Your task to perform on an android device: set default search engine in the chrome app Image 0: 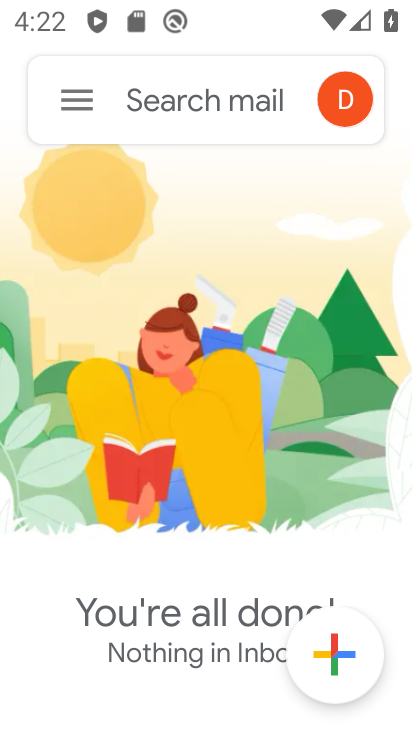
Step 0: drag from (234, 572) to (202, 282)
Your task to perform on an android device: set default search engine in the chrome app Image 1: 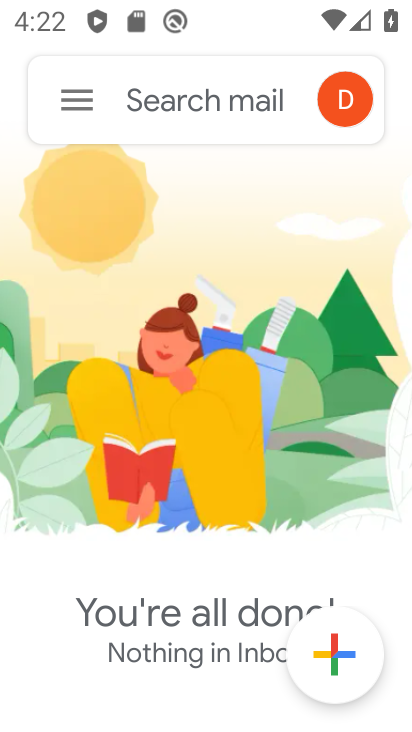
Step 1: press home button
Your task to perform on an android device: set default search engine in the chrome app Image 2: 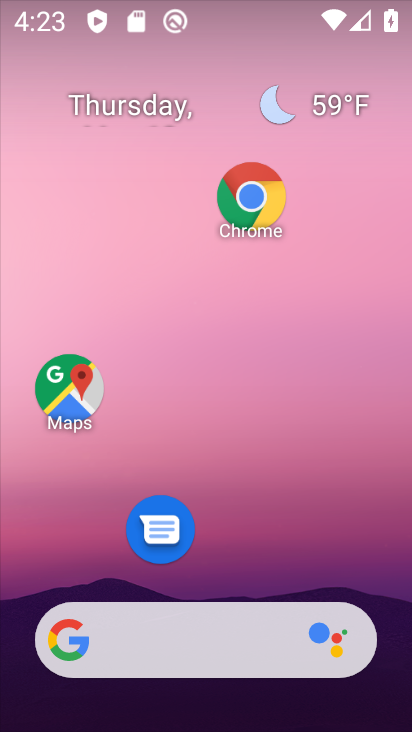
Step 2: click (244, 189)
Your task to perform on an android device: set default search engine in the chrome app Image 3: 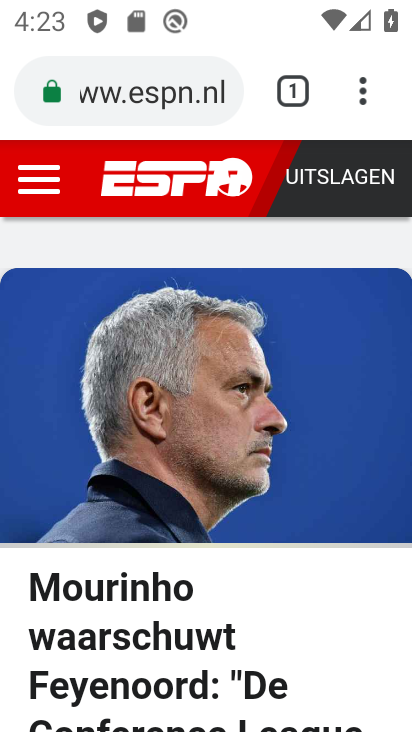
Step 3: click (360, 91)
Your task to perform on an android device: set default search engine in the chrome app Image 4: 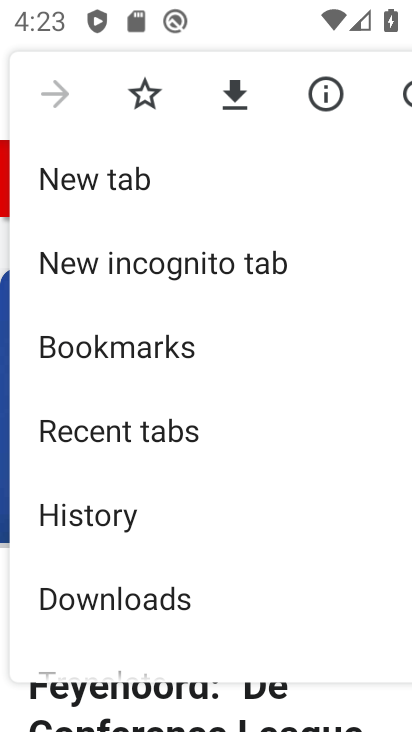
Step 4: drag from (221, 615) to (272, 164)
Your task to perform on an android device: set default search engine in the chrome app Image 5: 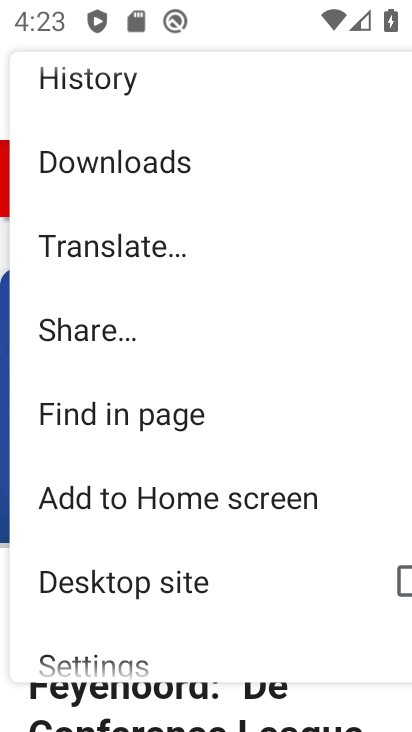
Step 5: drag from (216, 630) to (280, 259)
Your task to perform on an android device: set default search engine in the chrome app Image 6: 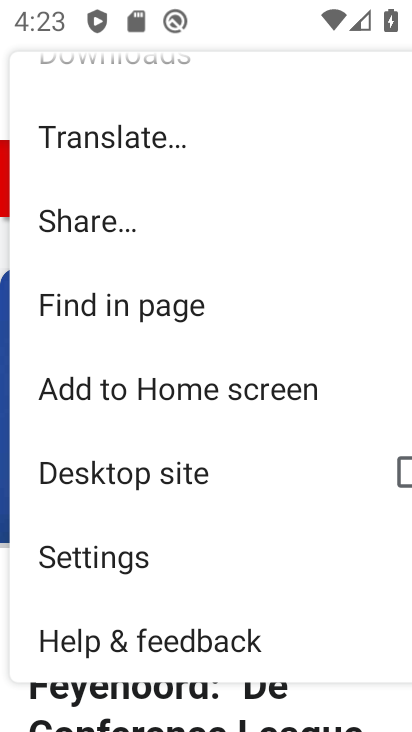
Step 6: click (158, 555)
Your task to perform on an android device: set default search engine in the chrome app Image 7: 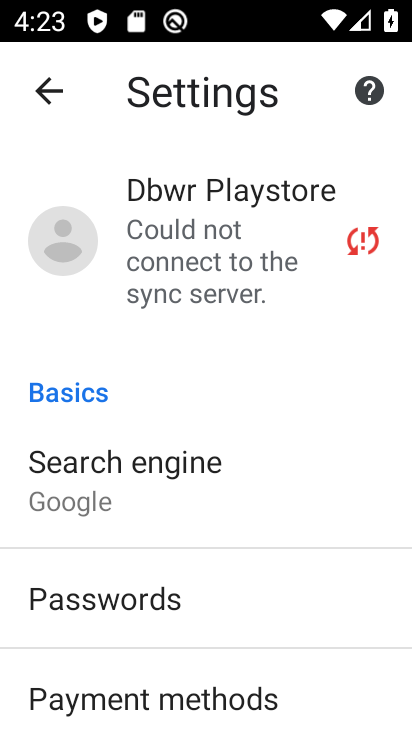
Step 7: click (159, 486)
Your task to perform on an android device: set default search engine in the chrome app Image 8: 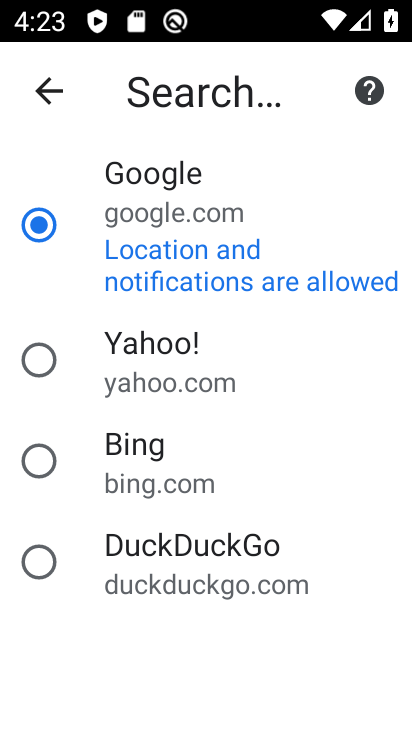
Step 8: click (55, 462)
Your task to perform on an android device: set default search engine in the chrome app Image 9: 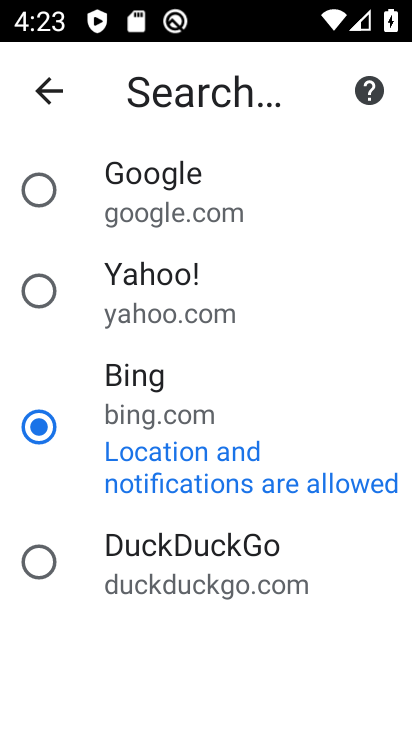
Step 9: task complete